Your task to perform on an android device: Go to Google maps Image 0: 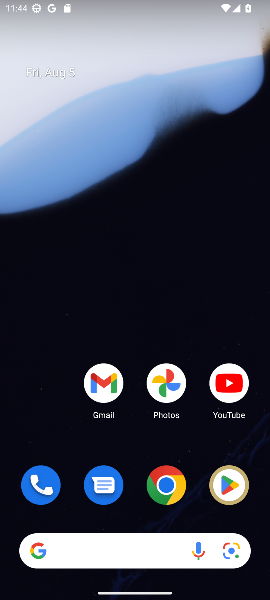
Step 0: drag from (134, 441) to (130, 6)
Your task to perform on an android device: Go to Google maps Image 1: 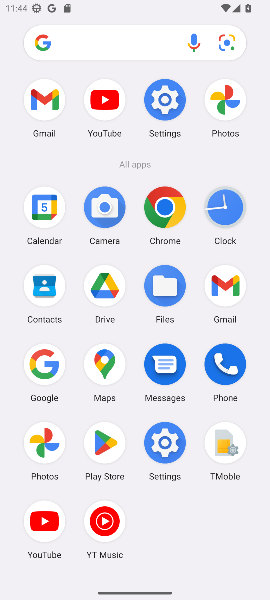
Step 1: click (103, 358)
Your task to perform on an android device: Go to Google maps Image 2: 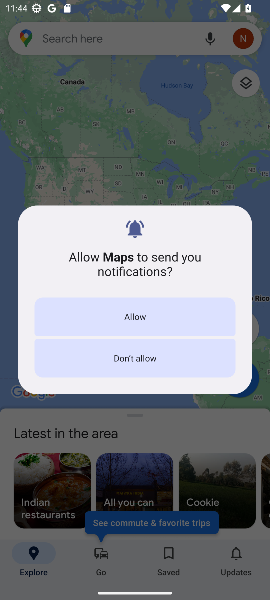
Step 2: click (145, 319)
Your task to perform on an android device: Go to Google maps Image 3: 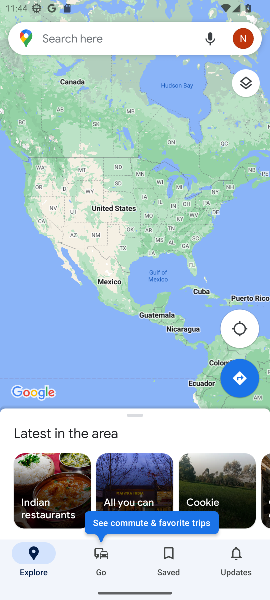
Step 3: task complete